Your task to perform on an android device: Show me popular videos on Youtube Image 0: 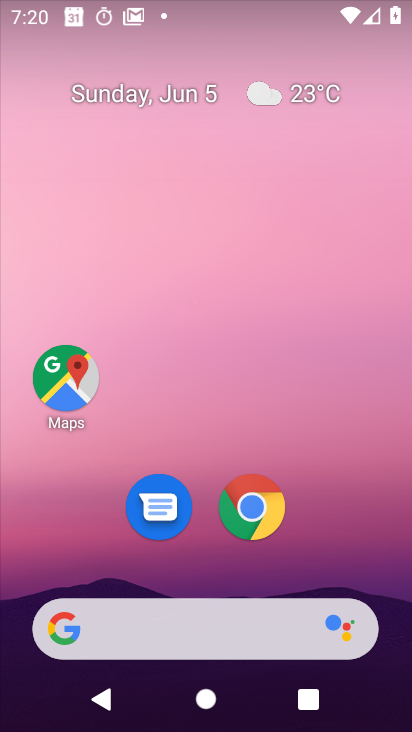
Step 0: press home button
Your task to perform on an android device: Show me popular videos on Youtube Image 1: 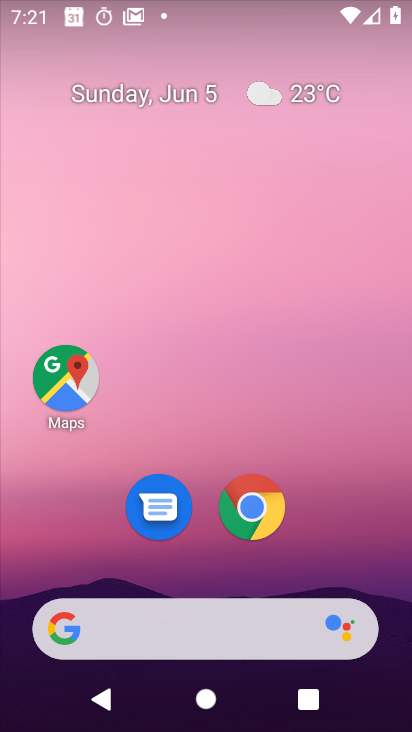
Step 1: drag from (250, 655) to (237, 151)
Your task to perform on an android device: Show me popular videos on Youtube Image 2: 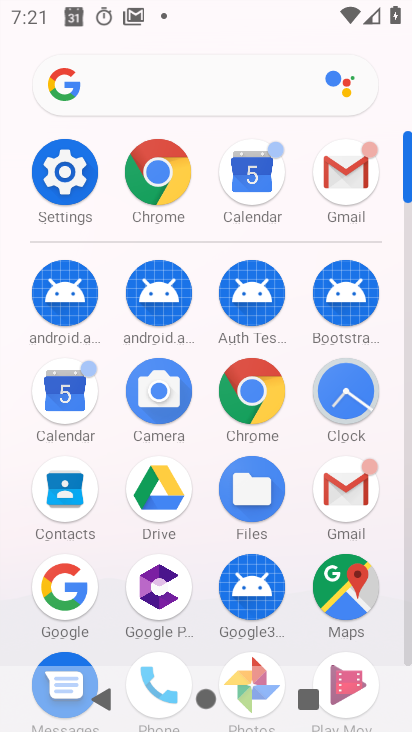
Step 2: drag from (208, 550) to (181, 411)
Your task to perform on an android device: Show me popular videos on Youtube Image 3: 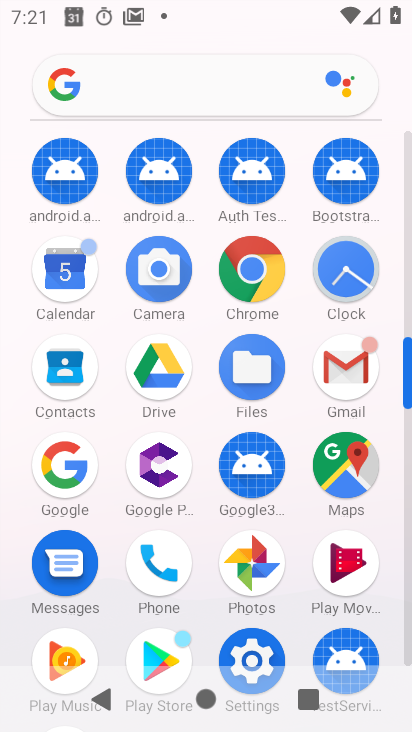
Step 3: drag from (209, 419) to (222, 241)
Your task to perform on an android device: Show me popular videos on Youtube Image 4: 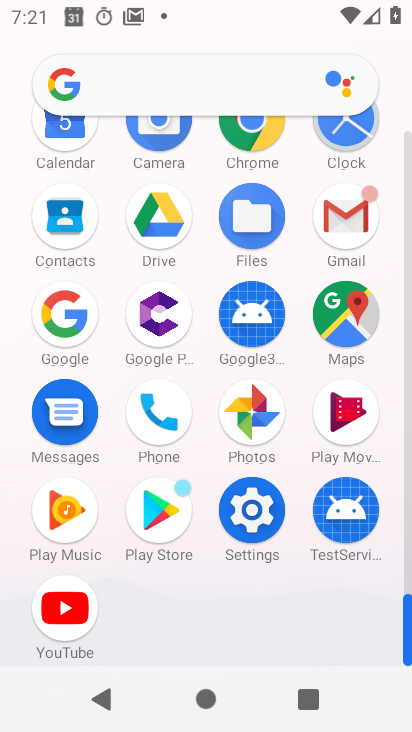
Step 4: click (46, 625)
Your task to perform on an android device: Show me popular videos on Youtube Image 5: 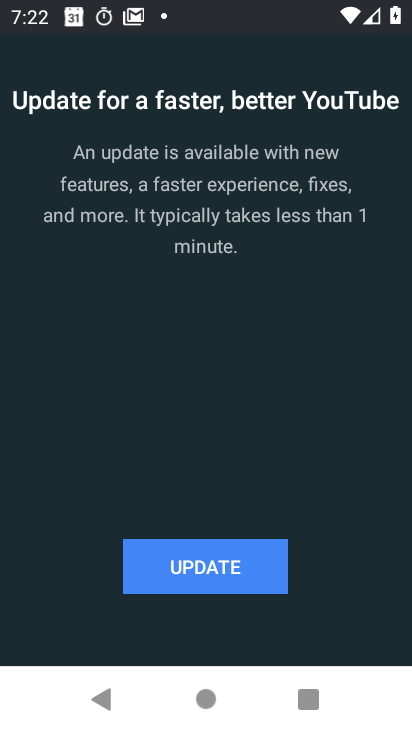
Step 5: click (175, 575)
Your task to perform on an android device: Show me popular videos on Youtube Image 6: 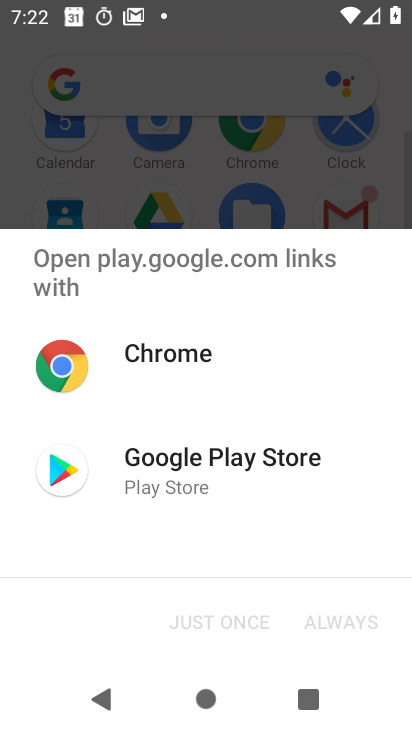
Step 6: click (202, 494)
Your task to perform on an android device: Show me popular videos on Youtube Image 7: 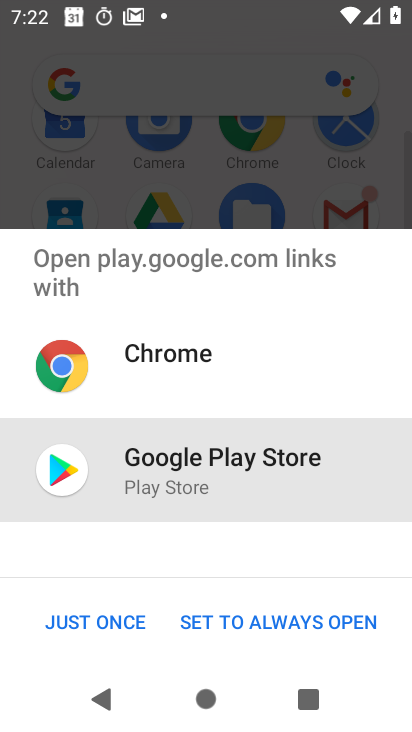
Step 7: click (112, 621)
Your task to perform on an android device: Show me popular videos on Youtube Image 8: 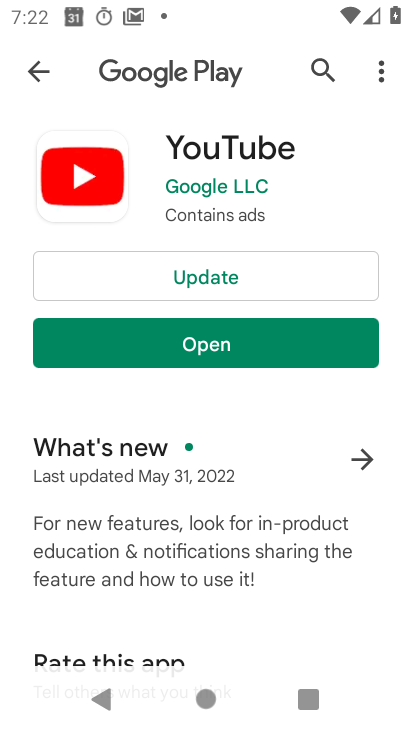
Step 8: click (209, 271)
Your task to perform on an android device: Show me popular videos on Youtube Image 9: 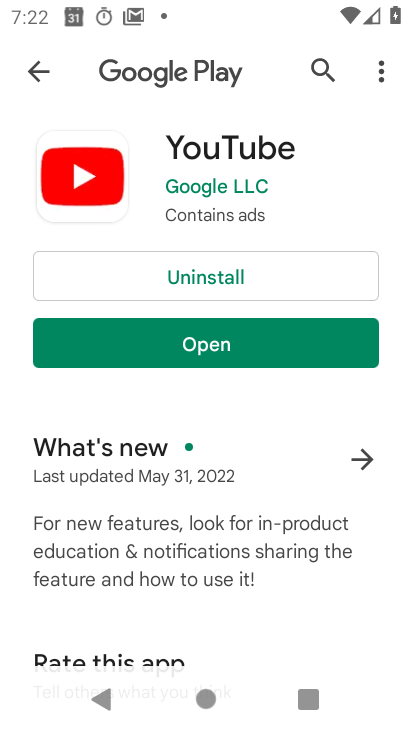
Step 9: click (187, 351)
Your task to perform on an android device: Show me popular videos on Youtube Image 10: 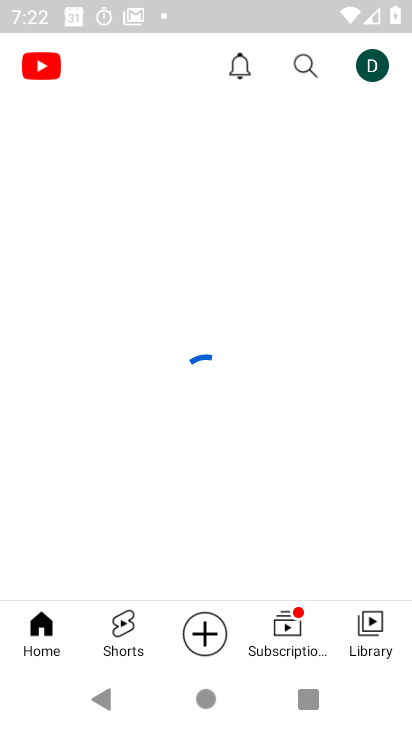
Step 10: click (301, 66)
Your task to perform on an android device: Show me popular videos on Youtube Image 11: 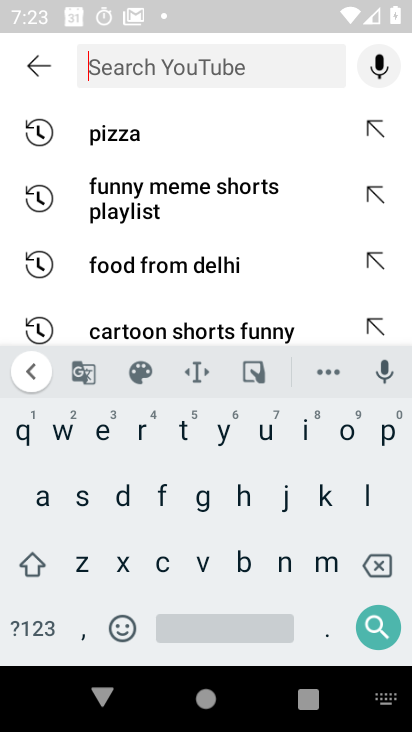
Step 11: click (396, 434)
Your task to perform on an android device: Show me popular videos on Youtube Image 12: 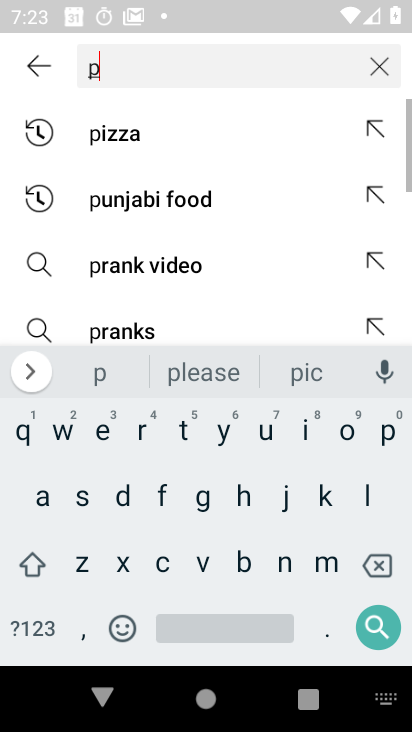
Step 12: click (348, 426)
Your task to perform on an android device: Show me popular videos on Youtube Image 13: 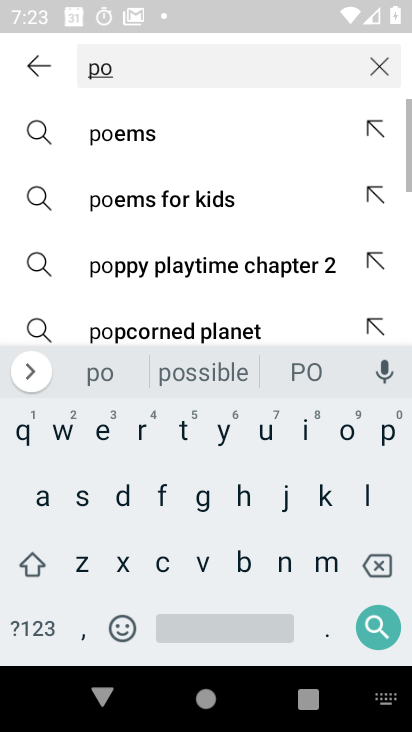
Step 13: click (393, 439)
Your task to perform on an android device: Show me popular videos on Youtube Image 14: 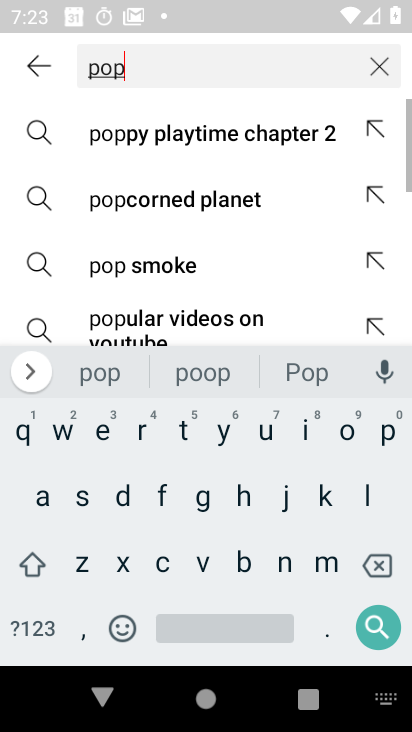
Step 14: click (265, 436)
Your task to perform on an android device: Show me popular videos on Youtube Image 15: 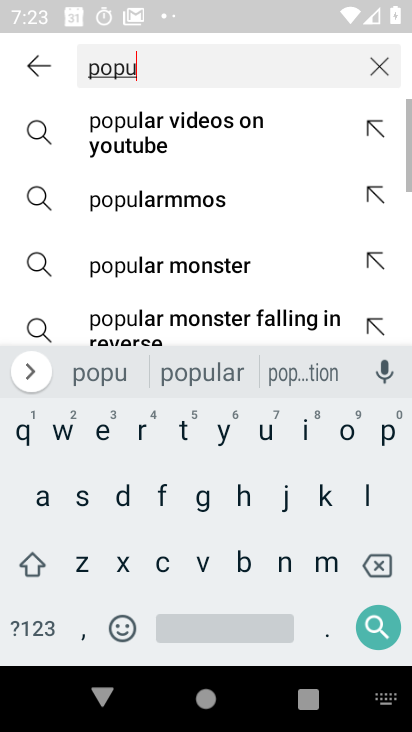
Step 15: click (213, 369)
Your task to perform on an android device: Show me popular videos on Youtube Image 16: 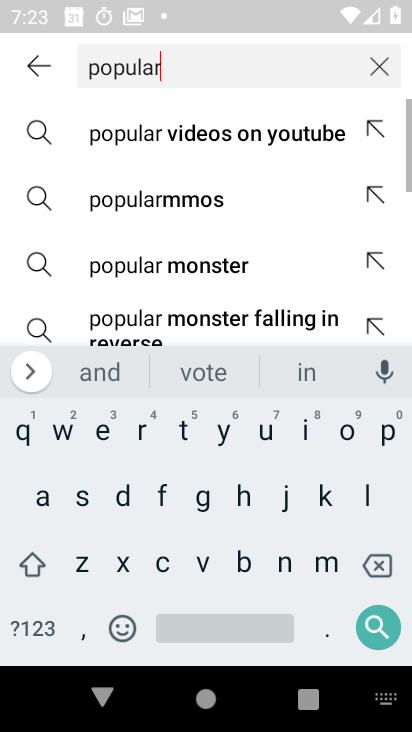
Step 16: click (196, 564)
Your task to perform on an android device: Show me popular videos on Youtube Image 17: 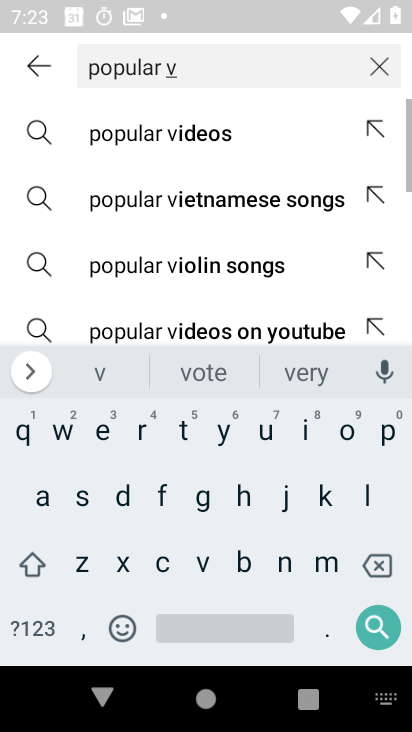
Step 17: click (199, 136)
Your task to perform on an android device: Show me popular videos on Youtube Image 18: 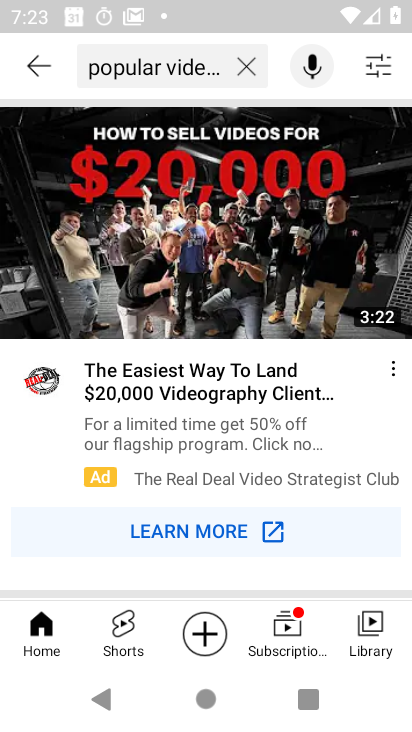
Step 18: task complete